Your task to perform on an android device: turn on the 12-hour format for clock Image 0: 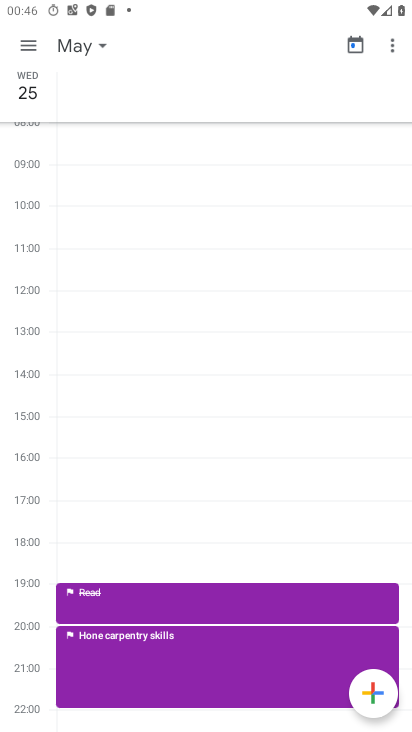
Step 0: press home button
Your task to perform on an android device: turn on the 12-hour format for clock Image 1: 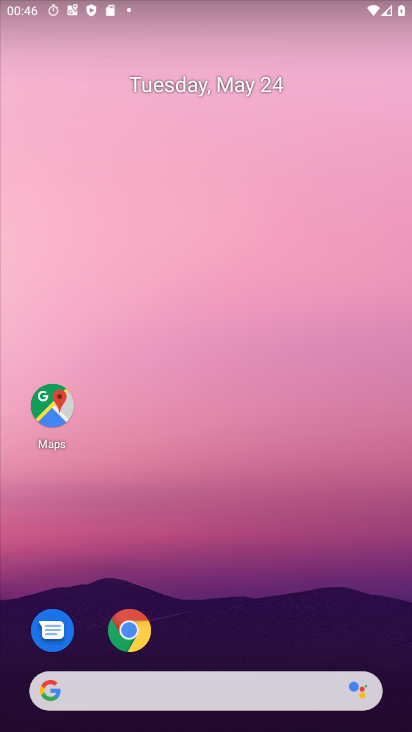
Step 1: drag from (227, 659) to (263, 4)
Your task to perform on an android device: turn on the 12-hour format for clock Image 2: 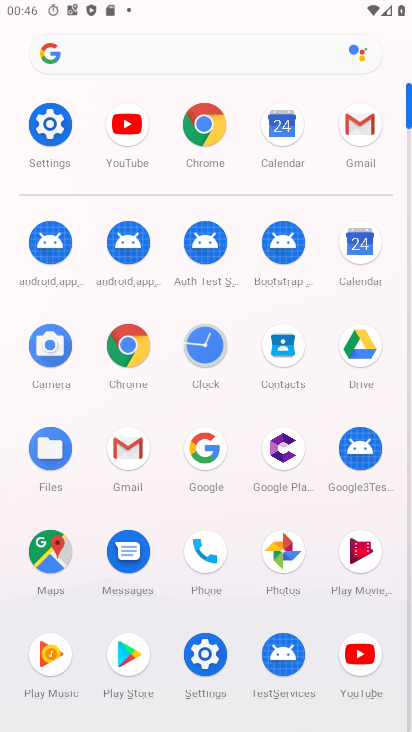
Step 2: click (199, 349)
Your task to perform on an android device: turn on the 12-hour format for clock Image 3: 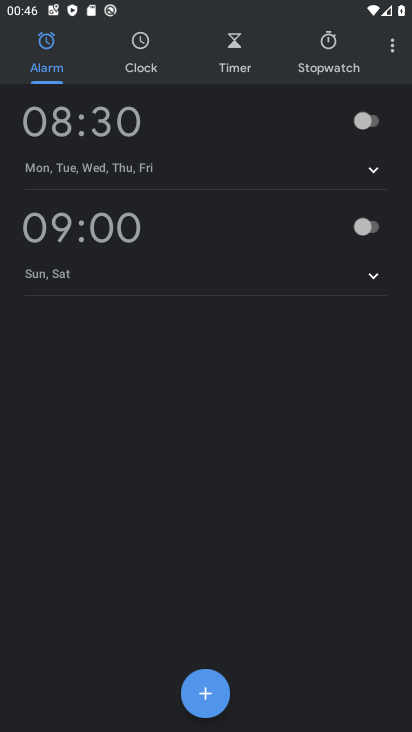
Step 3: click (394, 49)
Your task to perform on an android device: turn on the 12-hour format for clock Image 4: 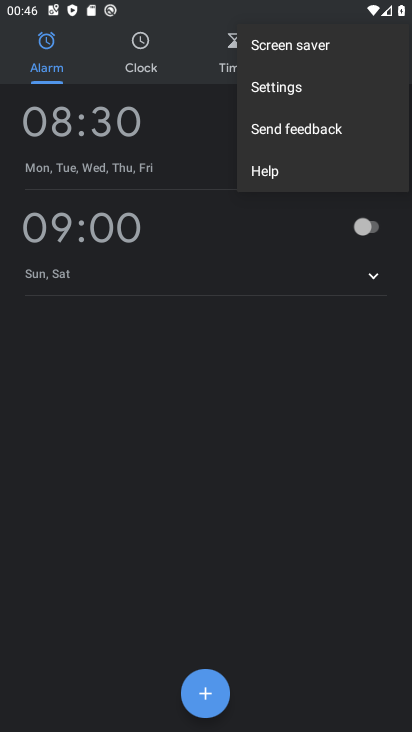
Step 4: click (272, 91)
Your task to perform on an android device: turn on the 12-hour format for clock Image 5: 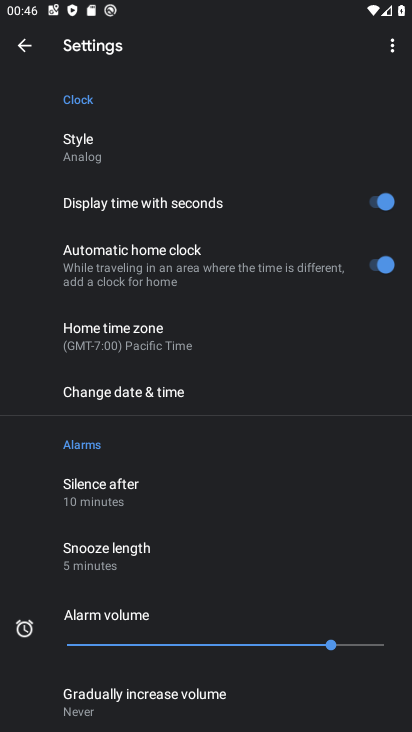
Step 5: click (152, 395)
Your task to perform on an android device: turn on the 12-hour format for clock Image 6: 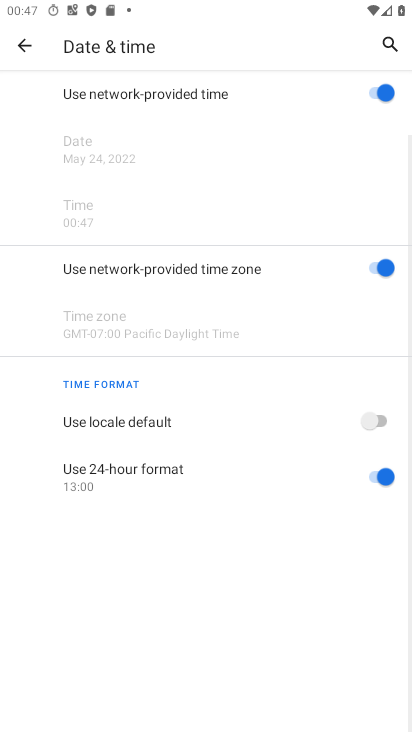
Step 6: click (167, 473)
Your task to perform on an android device: turn on the 12-hour format for clock Image 7: 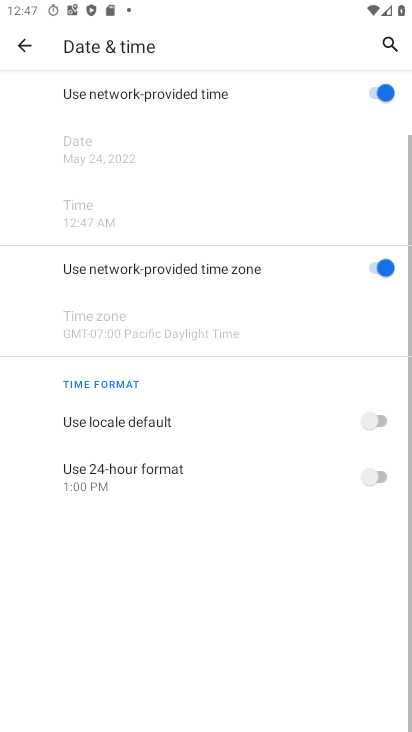
Step 7: click (370, 425)
Your task to perform on an android device: turn on the 12-hour format for clock Image 8: 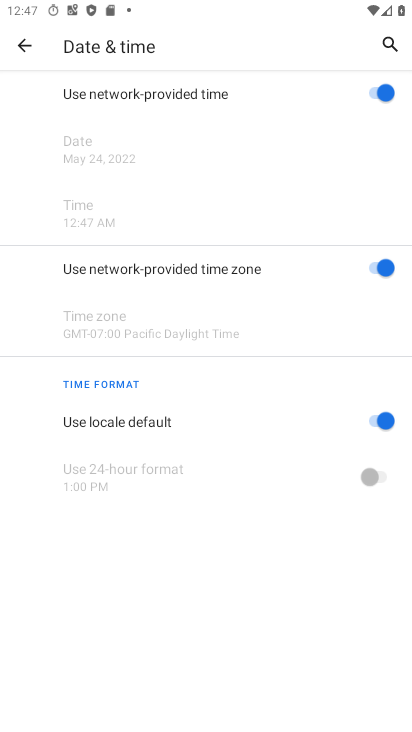
Step 8: task complete